Your task to perform on an android device: Open Google Maps Image 0: 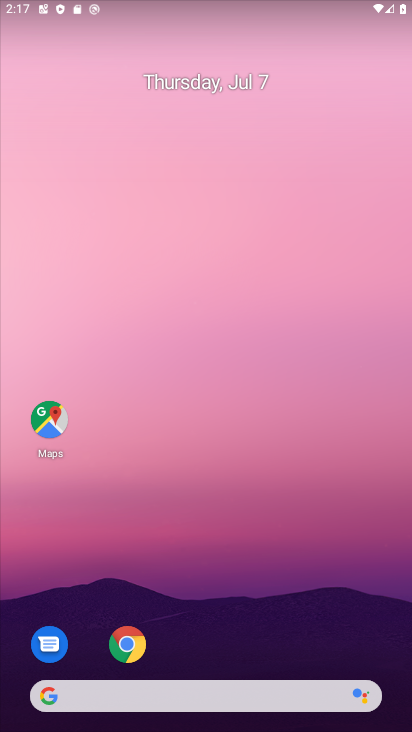
Step 0: press home button
Your task to perform on an android device: Open Google Maps Image 1: 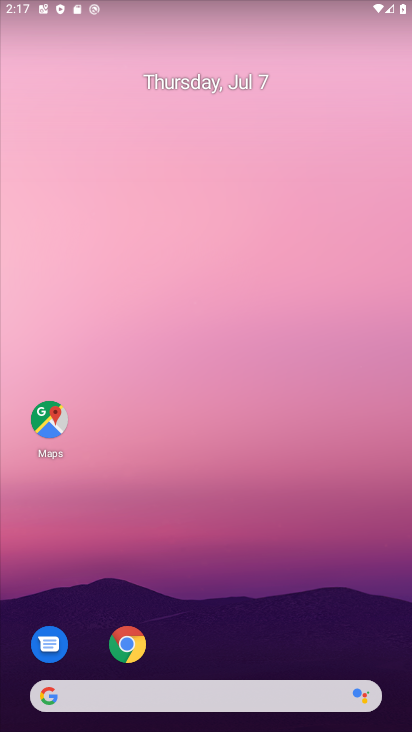
Step 1: click (54, 415)
Your task to perform on an android device: Open Google Maps Image 2: 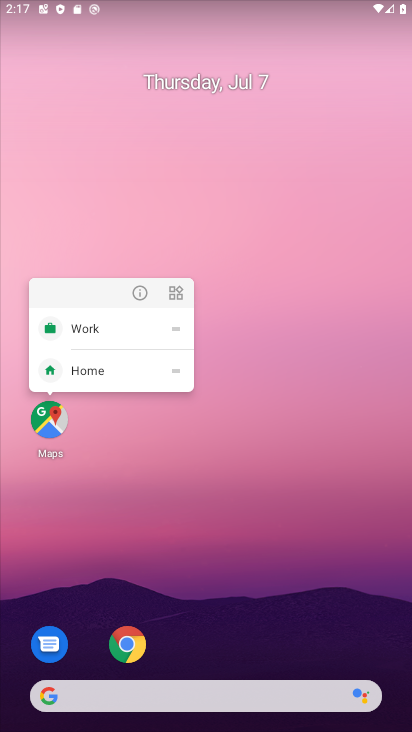
Step 2: click (37, 438)
Your task to perform on an android device: Open Google Maps Image 3: 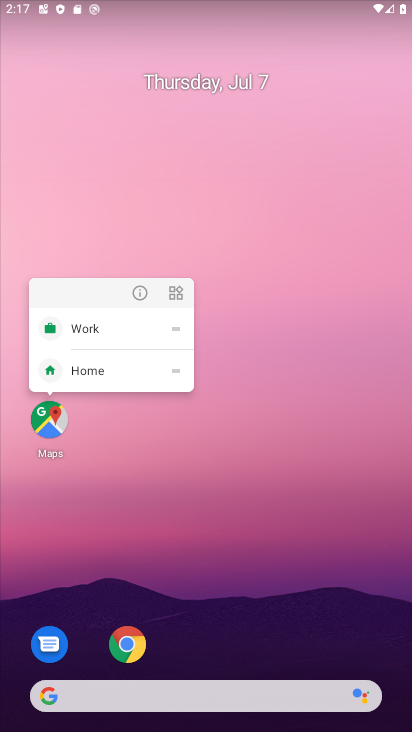
Step 3: click (45, 430)
Your task to perform on an android device: Open Google Maps Image 4: 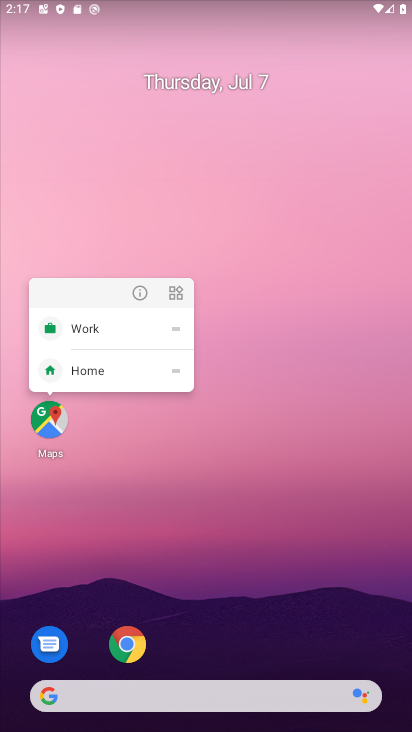
Step 4: click (45, 430)
Your task to perform on an android device: Open Google Maps Image 5: 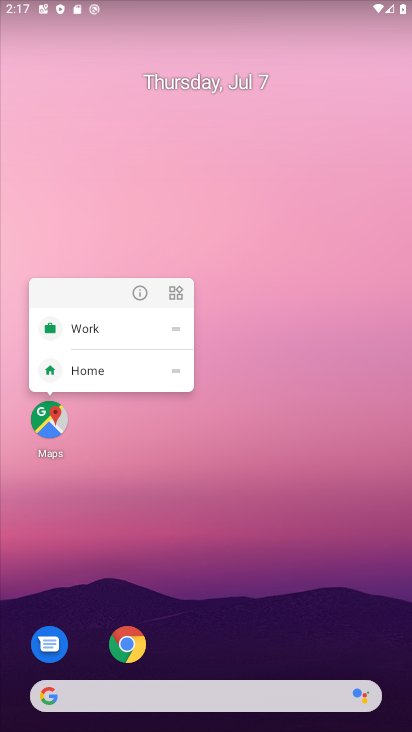
Step 5: click (48, 424)
Your task to perform on an android device: Open Google Maps Image 6: 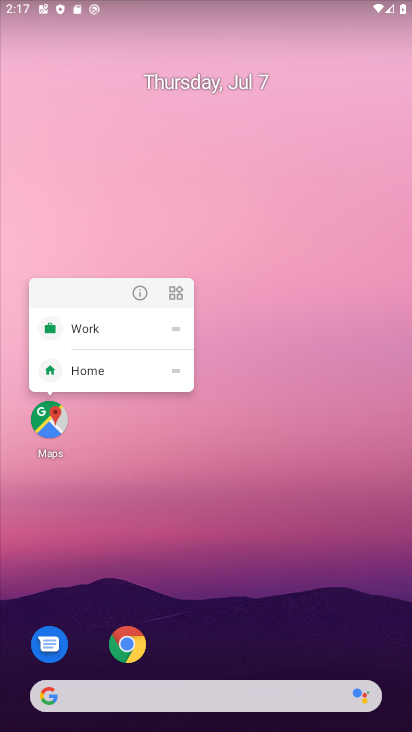
Step 6: click (48, 424)
Your task to perform on an android device: Open Google Maps Image 7: 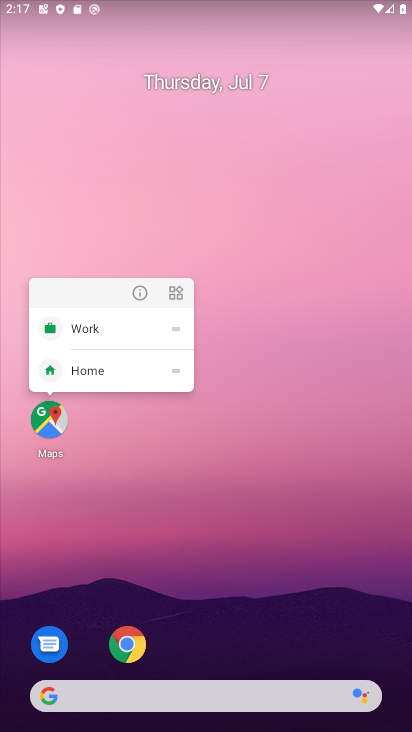
Step 7: drag from (247, 623) to (269, 11)
Your task to perform on an android device: Open Google Maps Image 8: 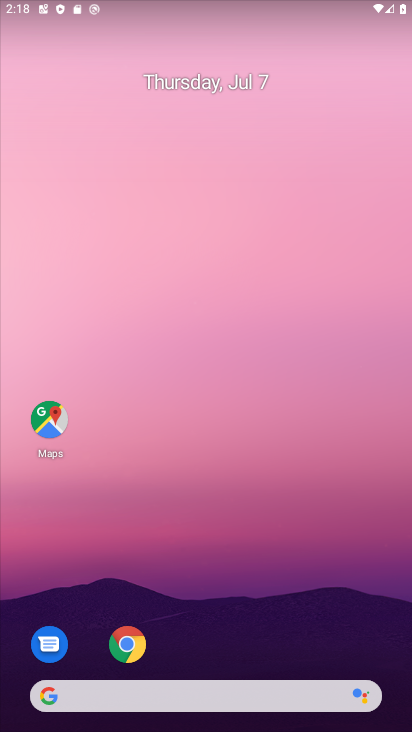
Step 8: drag from (270, 530) to (200, 283)
Your task to perform on an android device: Open Google Maps Image 9: 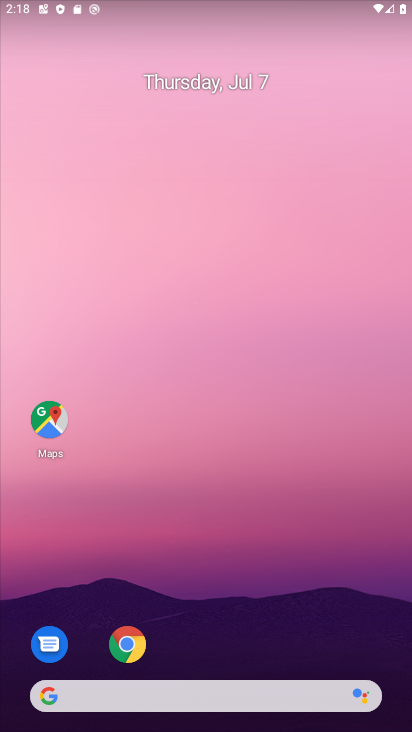
Step 9: drag from (279, 587) to (267, 44)
Your task to perform on an android device: Open Google Maps Image 10: 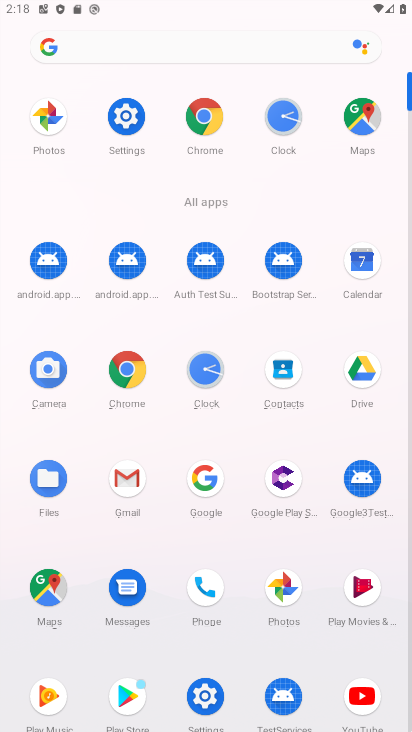
Step 10: click (366, 114)
Your task to perform on an android device: Open Google Maps Image 11: 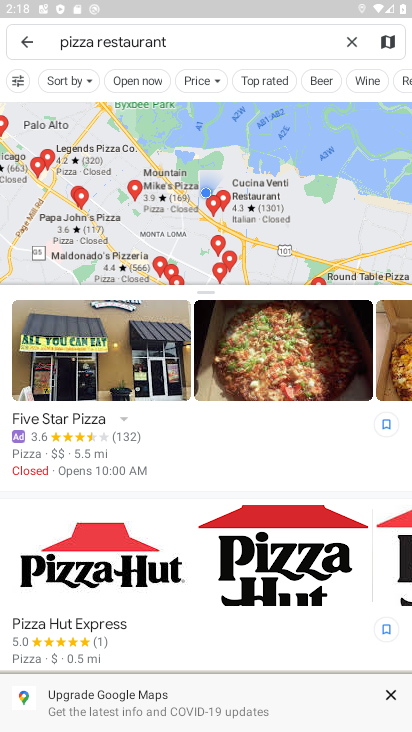
Step 11: task complete